Your task to perform on an android device: turn smart compose on in the gmail app Image 0: 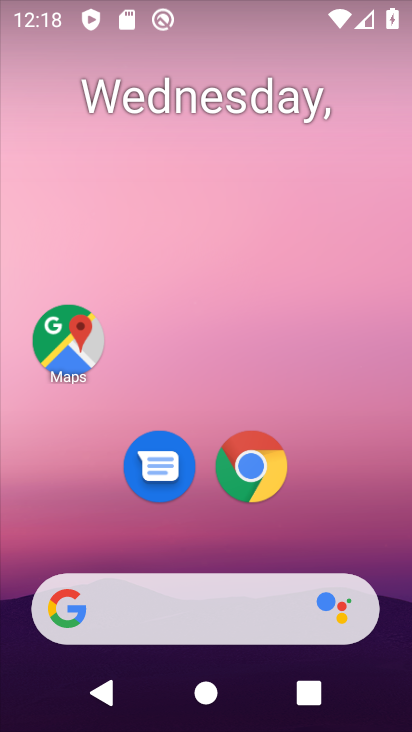
Step 0: press home button
Your task to perform on an android device: turn smart compose on in the gmail app Image 1: 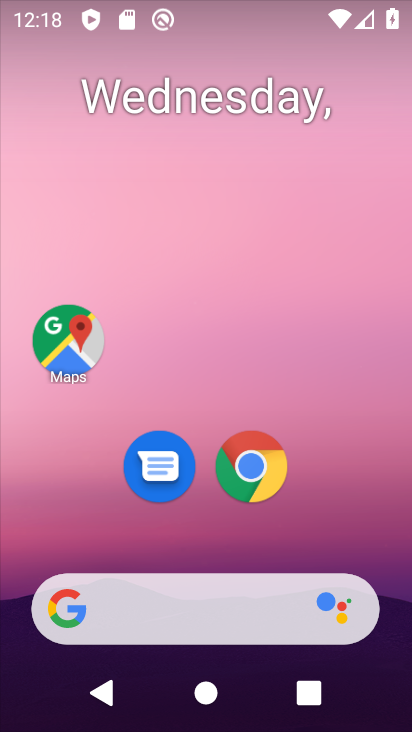
Step 1: drag from (394, 605) to (359, 244)
Your task to perform on an android device: turn smart compose on in the gmail app Image 2: 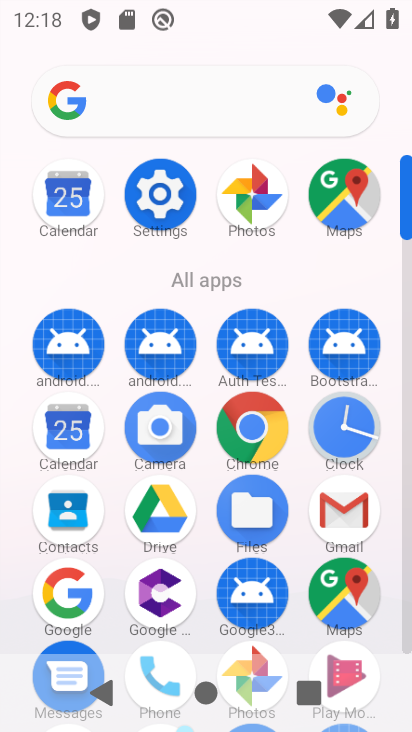
Step 2: click (343, 518)
Your task to perform on an android device: turn smart compose on in the gmail app Image 3: 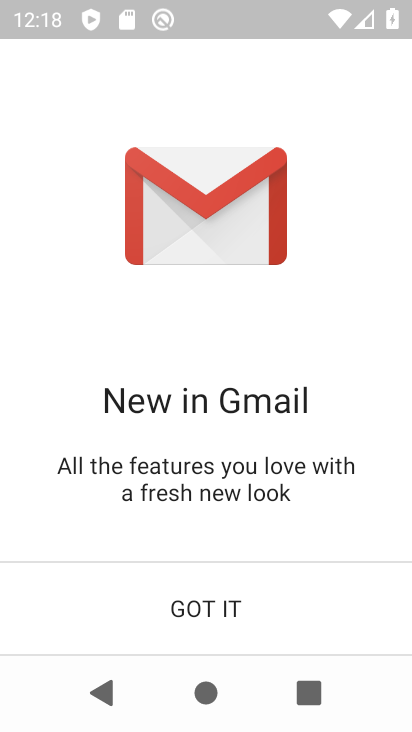
Step 3: click (266, 622)
Your task to perform on an android device: turn smart compose on in the gmail app Image 4: 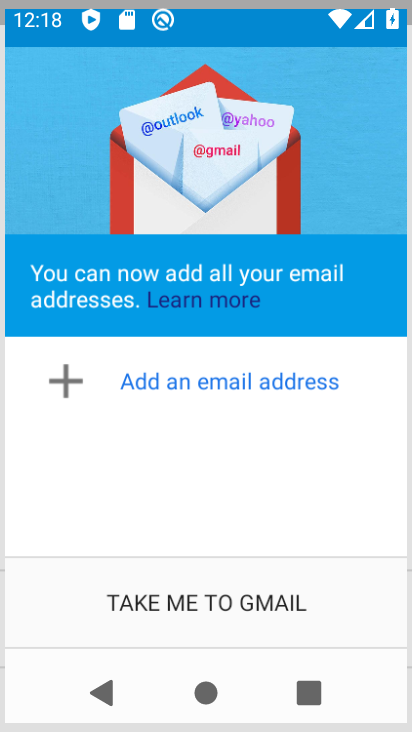
Step 4: click (266, 622)
Your task to perform on an android device: turn smart compose on in the gmail app Image 5: 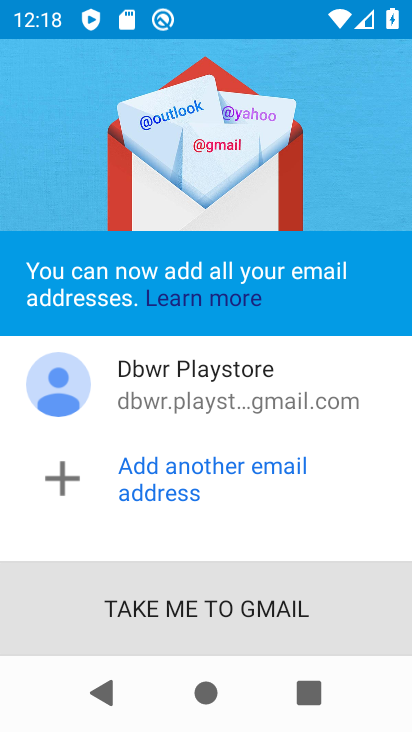
Step 5: click (266, 622)
Your task to perform on an android device: turn smart compose on in the gmail app Image 6: 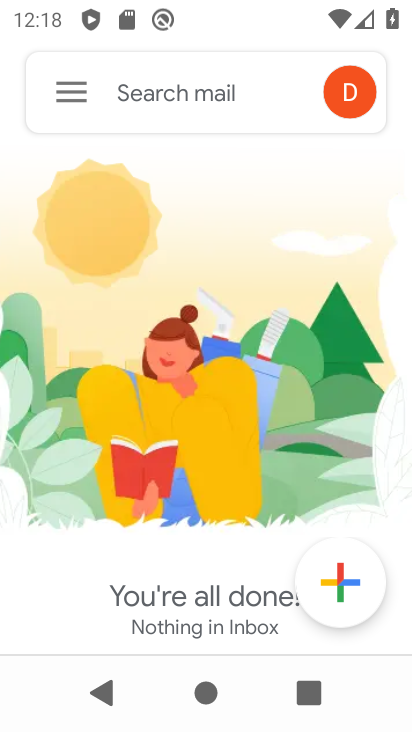
Step 6: click (61, 92)
Your task to perform on an android device: turn smart compose on in the gmail app Image 7: 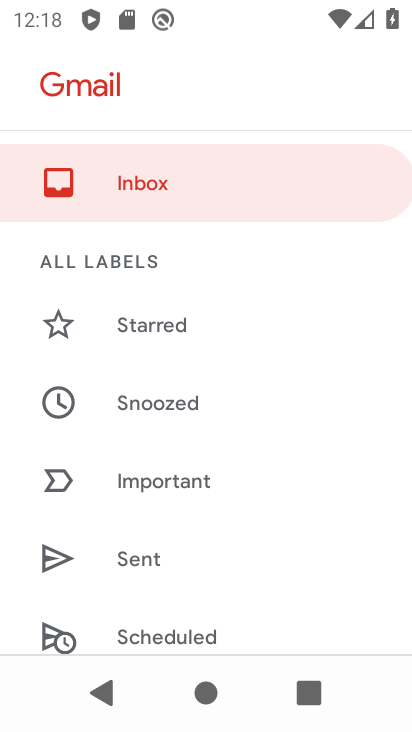
Step 7: drag from (183, 565) to (266, 210)
Your task to perform on an android device: turn smart compose on in the gmail app Image 8: 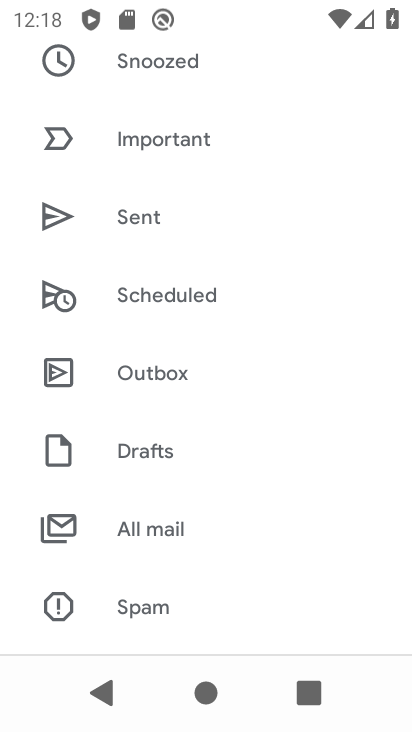
Step 8: drag from (161, 583) to (237, 152)
Your task to perform on an android device: turn smart compose on in the gmail app Image 9: 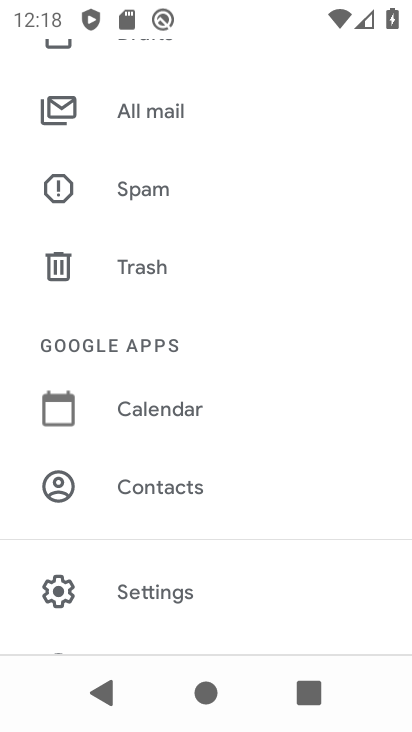
Step 9: click (156, 585)
Your task to perform on an android device: turn smart compose on in the gmail app Image 10: 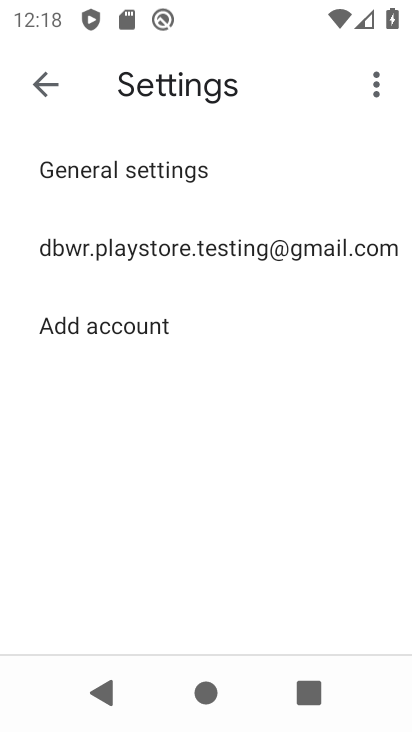
Step 10: click (210, 237)
Your task to perform on an android device: turn smart compose on in the gmail app Image 11: 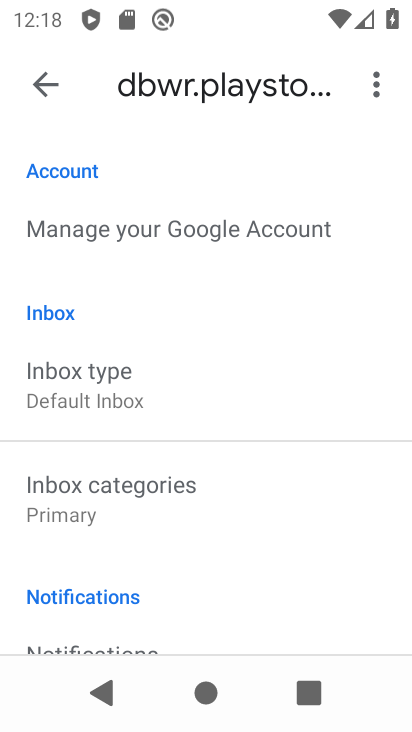
Step 11: task complete